Your task to perform on an android device: uninstall "Spotify: Music and Podcasts" Image 0: 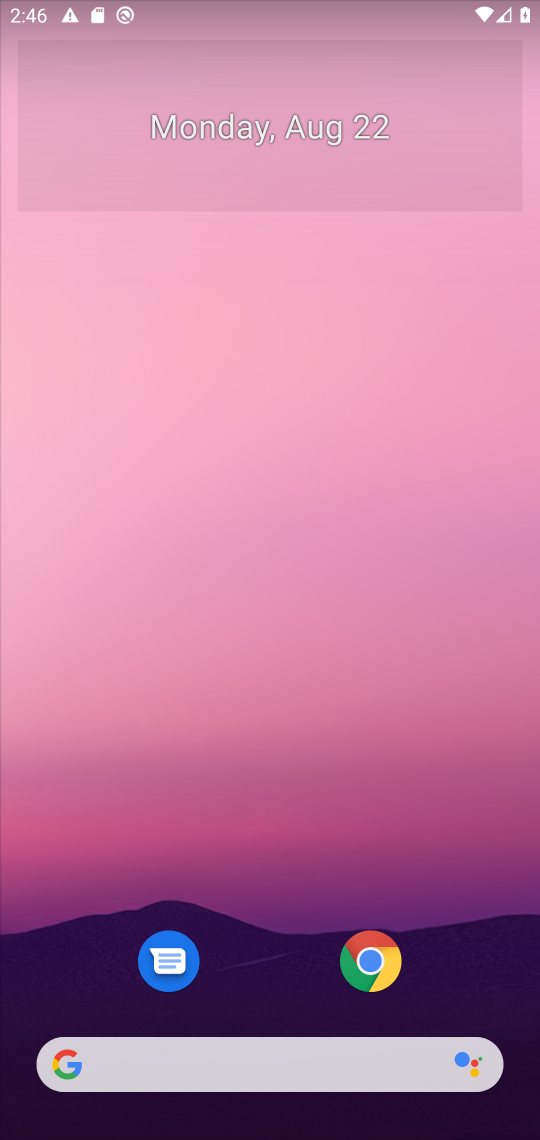
Step 0: press home button
Your task to perform on an android device: uninstall "Spotify: Music and Podcasts" Image 1: 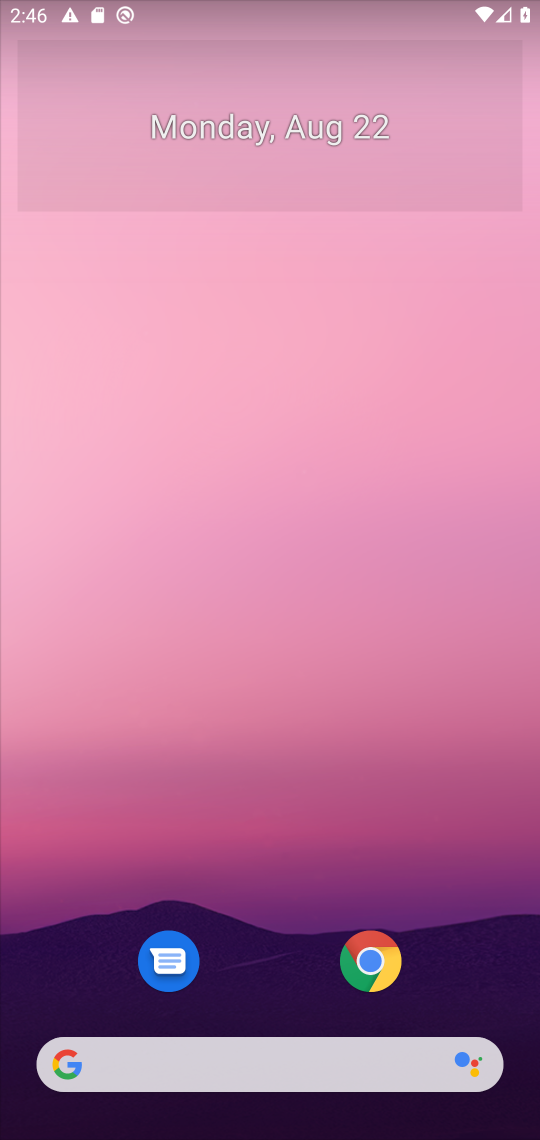
Step 1: drag from (460, 970) to (498, 198)
Your task to perform on an android device: uninstall "Spotify: Music and Podcasts" Image 2: 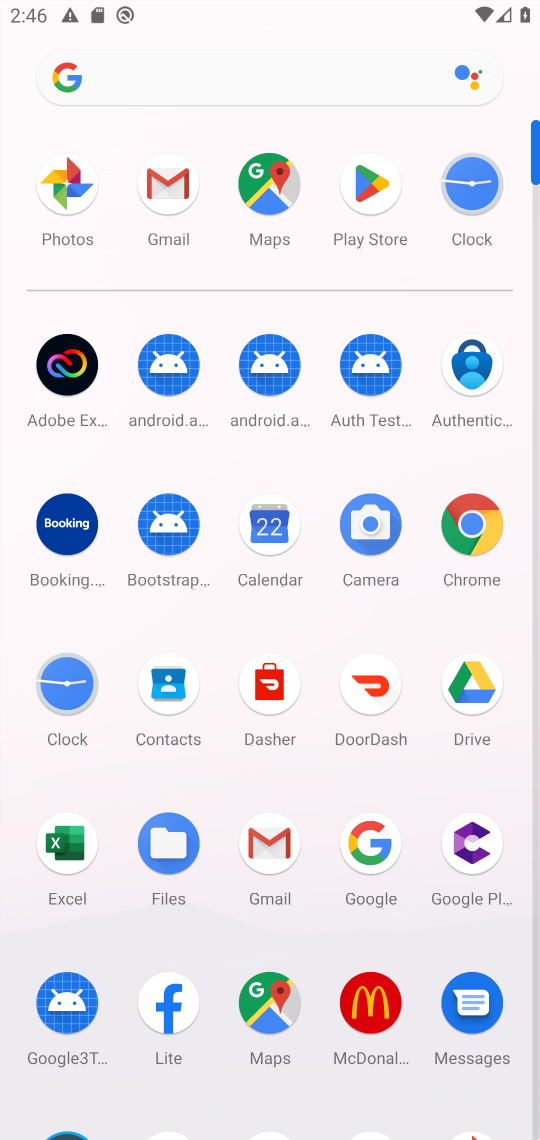
Step 2: click (366, 188)
Your task to perform on an android device: uninstall "Spotify: Music and Podcasts" Image 3: 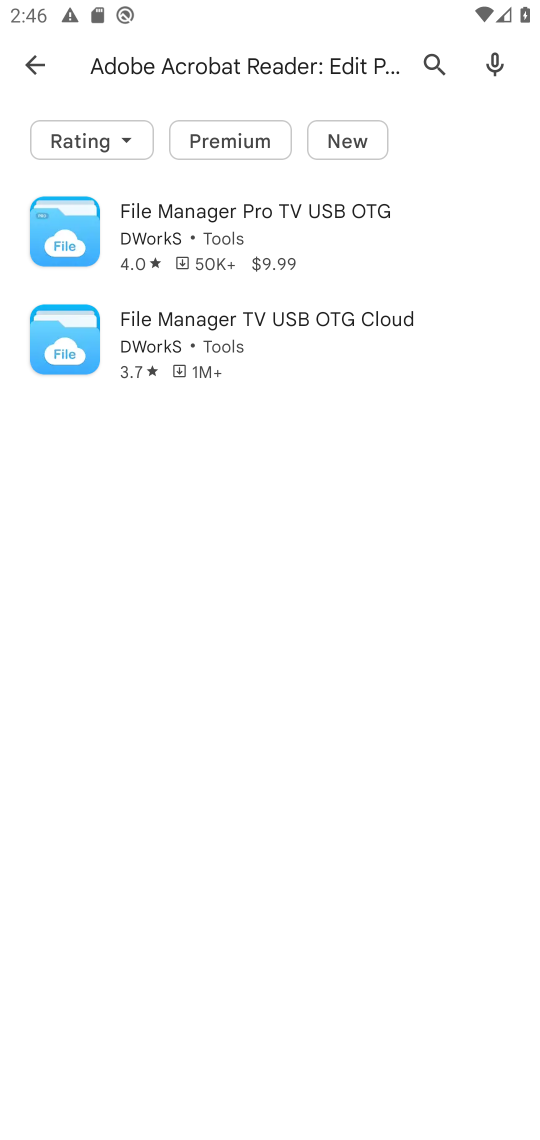
Step 3: press back button
Your task to perform on an android device: uninstall "Spotify: Music and Podcasts" Image 4: 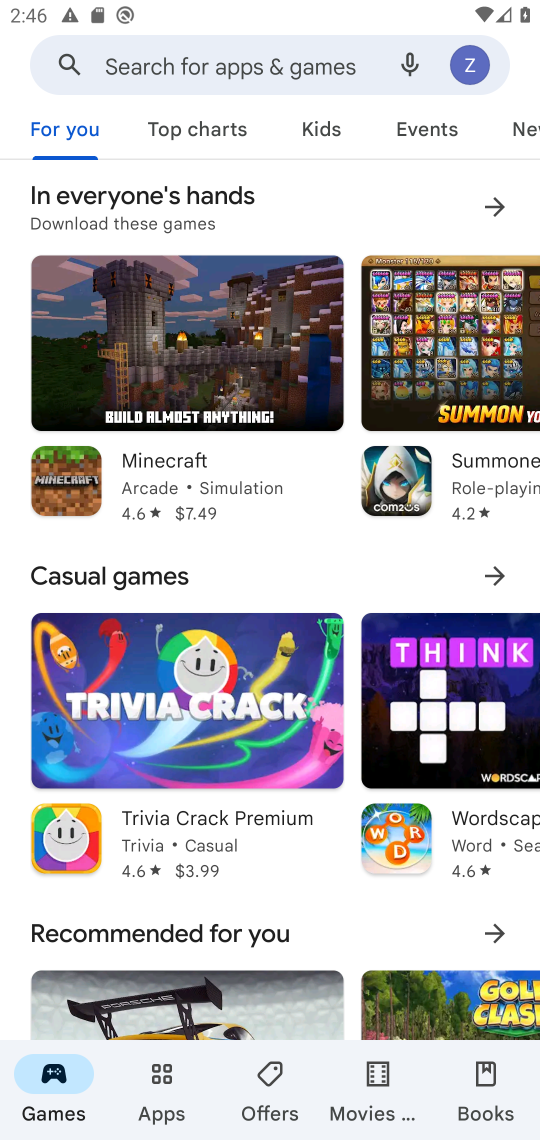
Step 4: click (278, 73)
Your task to perform on an android device: uninstall "Spotify: Music and Podcasts" Image 5: 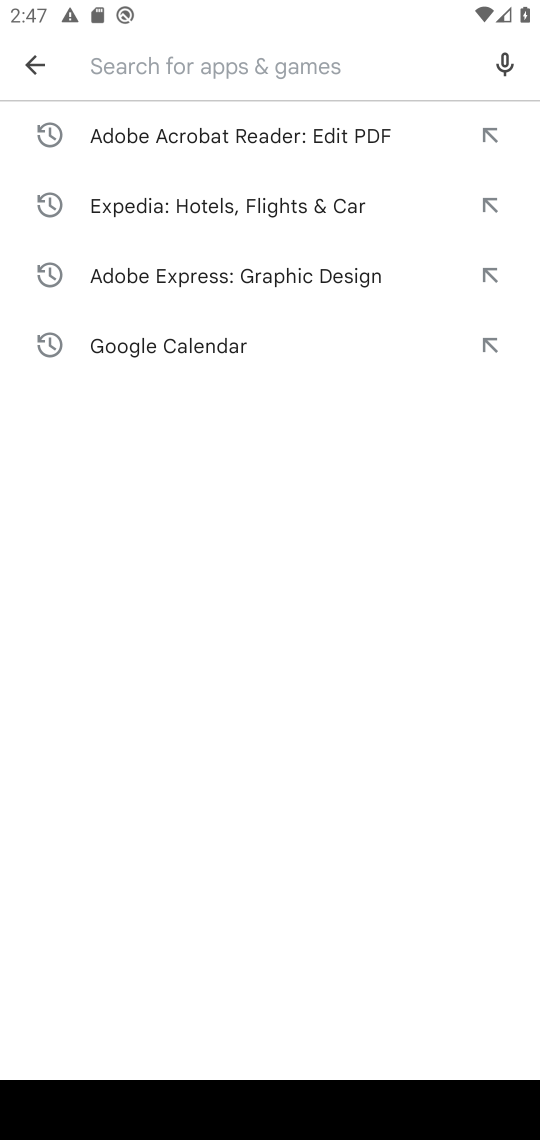
Step 5: type "Spotify: Music and Podcasts"
Your task to perform on an android device: uninstall "Spotify: Music and Podcasts" Image 6: 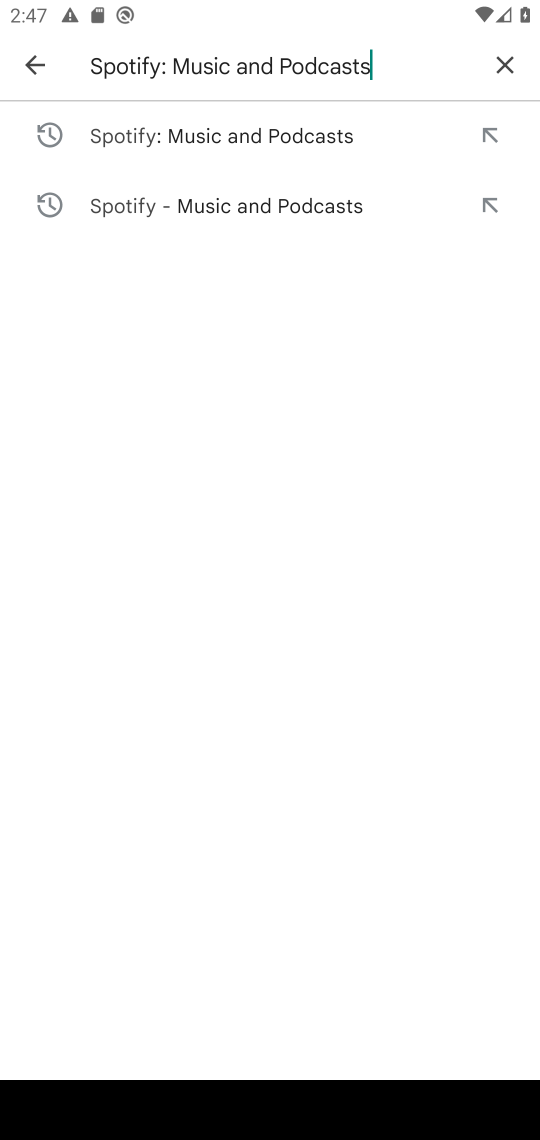
Step 6: press enter
Your task to perform on an android device: uninstall "Spotify: Music and Podcasts" Image 7: 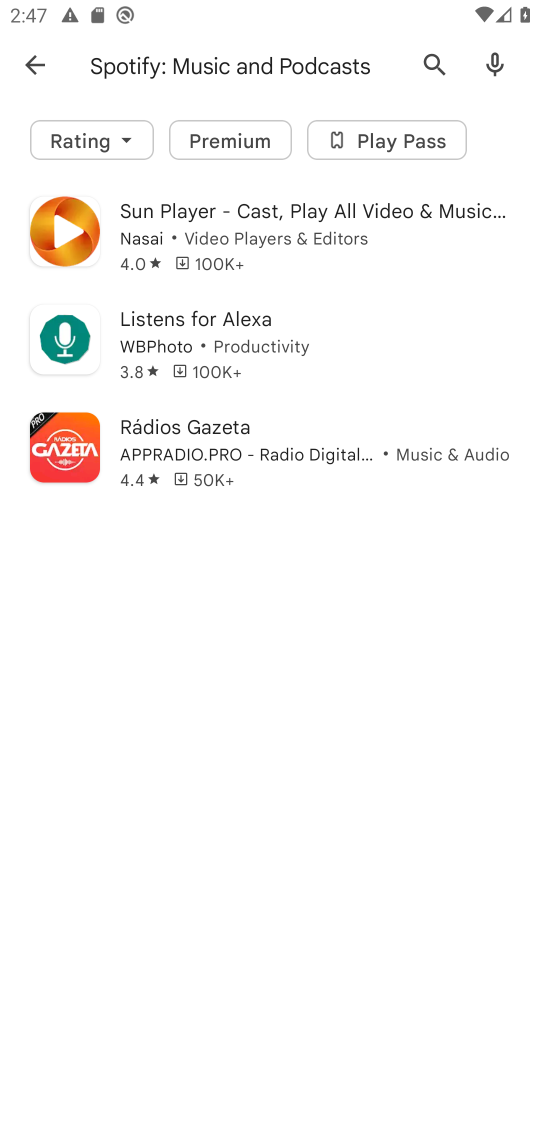
Step 7: task complete